Your task to perform on an android device: Open internet settings Image 0: 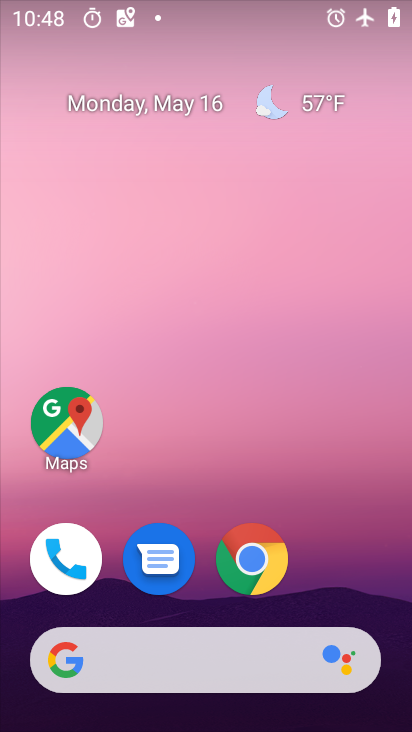
Step 0: drag from (330, 535) to (379, 96)
Your task to perform on an android device: Open internet settings Image 1: 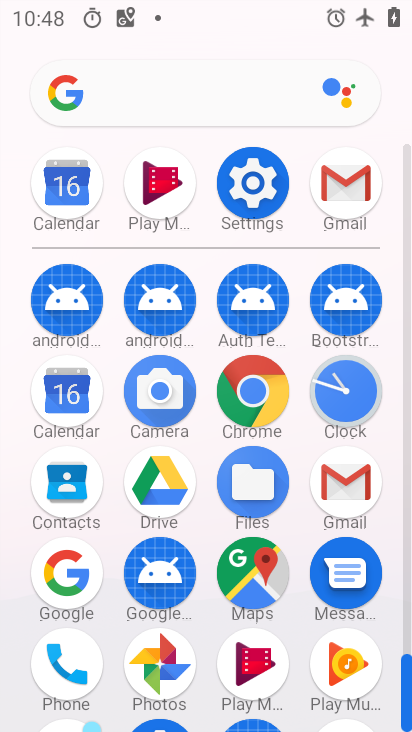
Step 1: click (269, 183)
Your task to perform on an android device: Open internet settings Image 2: 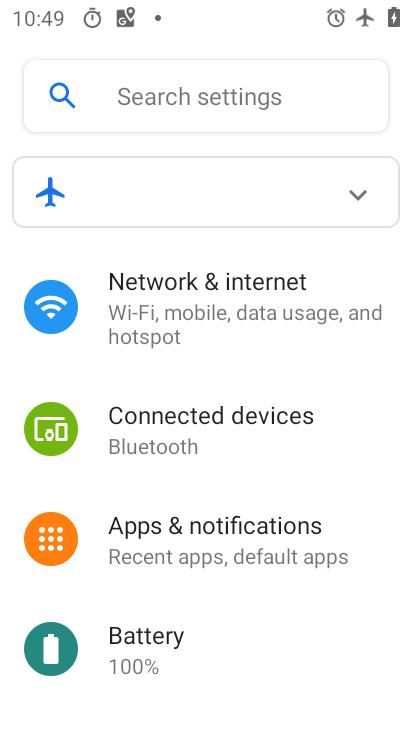
Step 2: click (241, 311)
Your task to perform on an android device: Open internet settings Image 3: 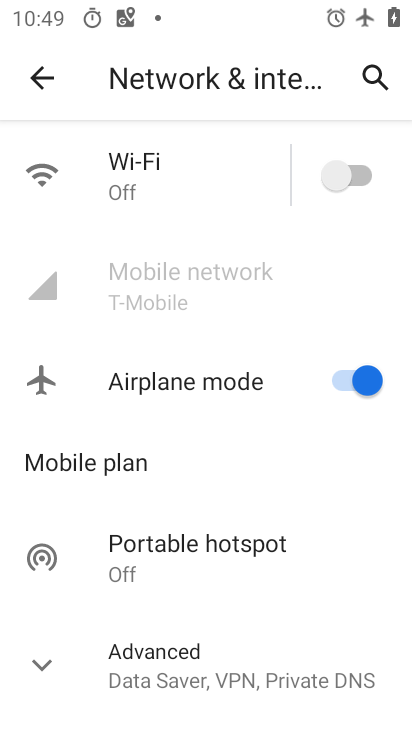
Step 3: click (133, 195)
Your task to perform on an android device: Open internet settings Image 4: 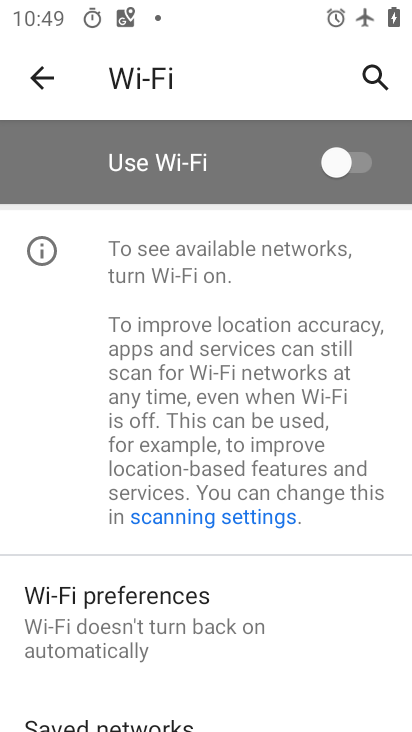
Step 4: click (48, 68)
Your task to perform on an android device: Open internet settings Image 5: 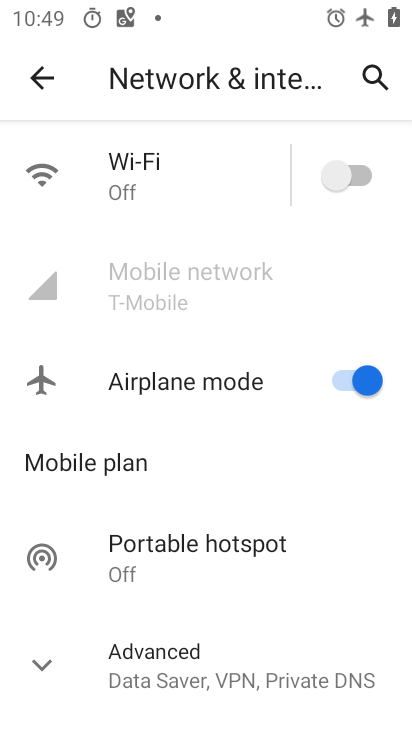
Step 5: task complete